Your task to perform on an android device: Turn on the flashlight Image 0: 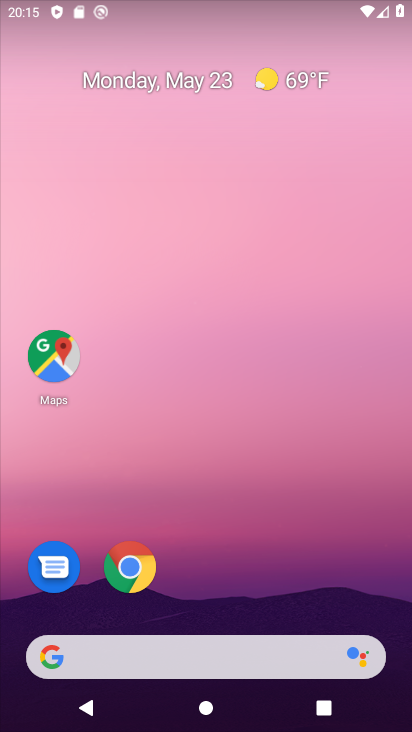
Step 0: drag from (212, 610) to (248, 28)
Your task to perform on an android device: Turn on the flashlight Image 1: 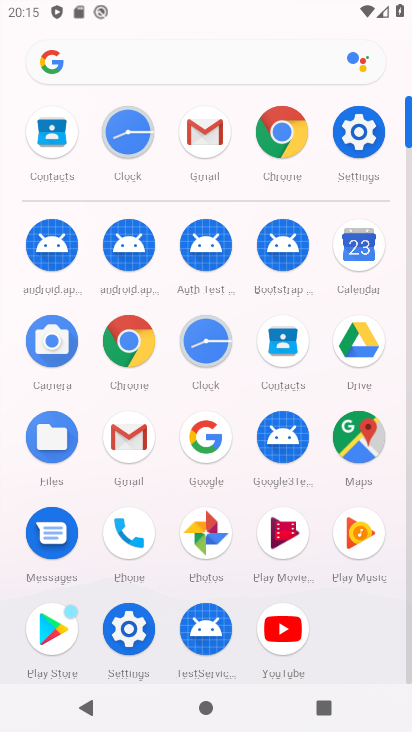
Step 1: click (354, 147)
Your task to perform on an android device: Turn on the flashlight Image 2: 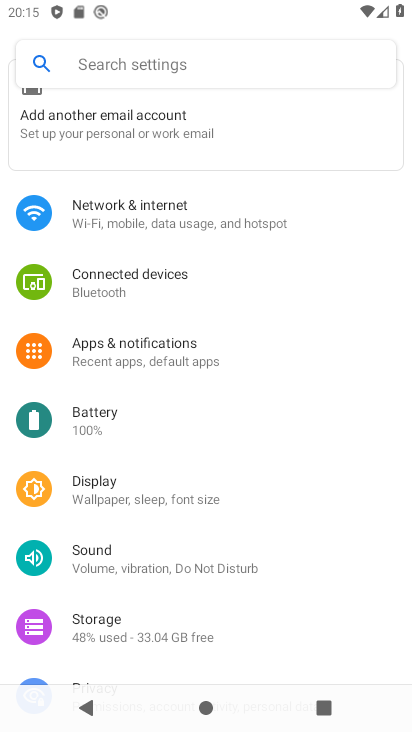
Step 2: click (181, 64)
Your task to perform on an android device: Turn on the flashlight Image 3: 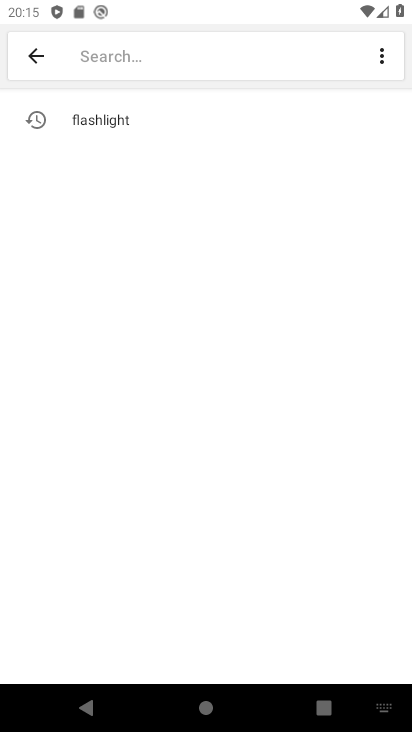
Step 3: type "flashlight"
Your task to perform on an android device: Turn on the flashlight Image 4: 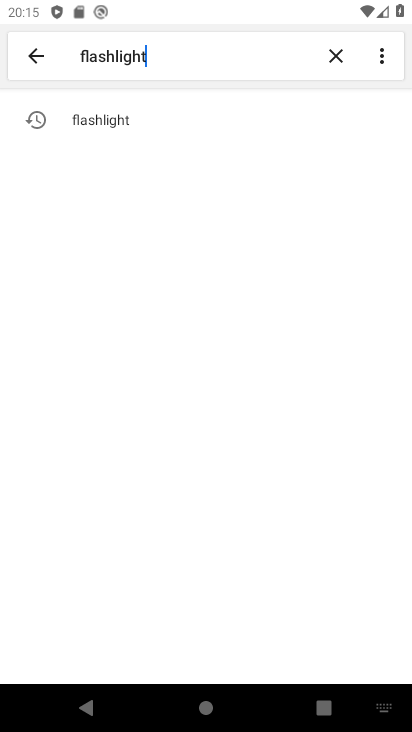
Step 4: click (129, 117)
Your task to perform on an android device: Turn on the flashlight Image 5: 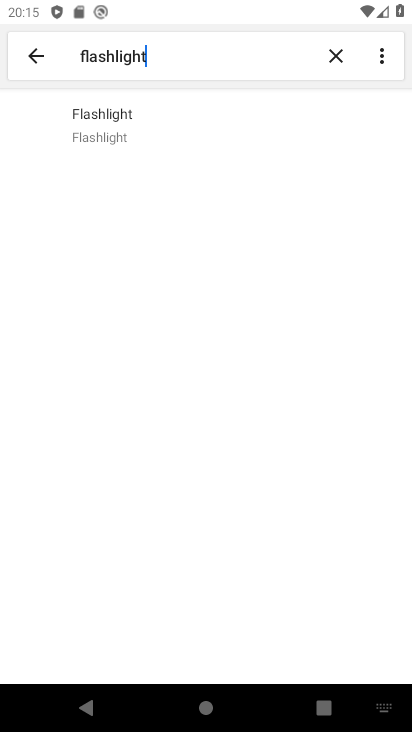
Step 5: click (139, 128)
Your task to perform on an android device: Turn on the flashlight Image 6: 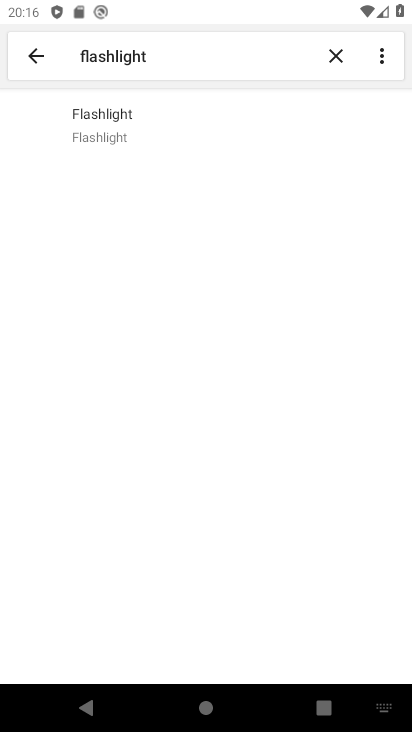
Step 6: task complete